Your task to perform on an android device: Search for the best rated vacuums on Target Image 0: 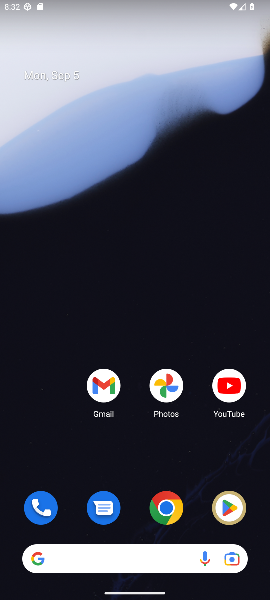
Step 0: click (165, 503)
Your task to perform on an android device: Search for the best rated vacuums on Target Image 1: 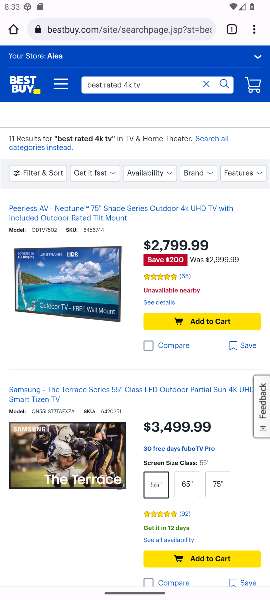
Step 1: click (165, 27)
Your task to perform on an android device: Search for the best rated vacuums on Target Image 2: 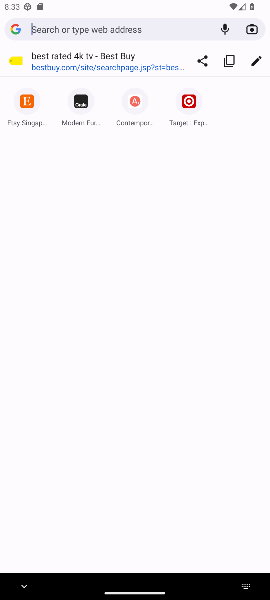
Step 2: type "target"
Your task to perform on an android device: Search for the best rated vacuums on Target Image 3: 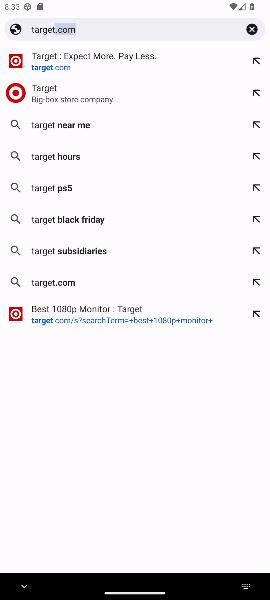
Step 3: click (57, 66)
Your task to perform on an android device: Search for the best rated vacuums on Target Image 4: 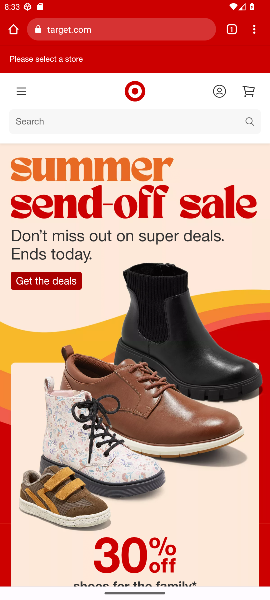
Step 4: click (247, 124)
Your task to perform on an android device: Search for the best rated vacuums on Target Image 5: 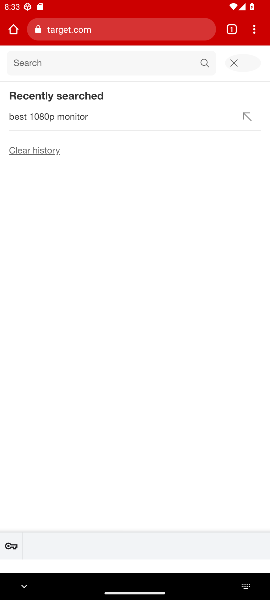
Step 5: type " best rated vacuums"
Your task to perform on an android device: Search for the best rated vacuums on Target Image 6: 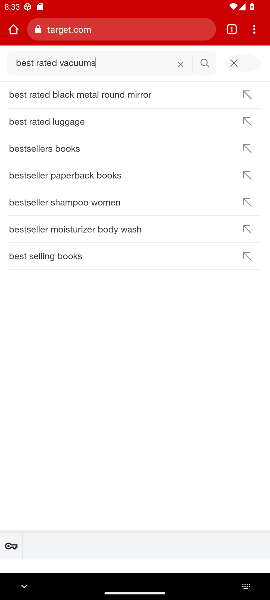
Step 6: click (208, 57)
Your task to perform on an android device: Search for the best rated vacuums on Target Image 7: 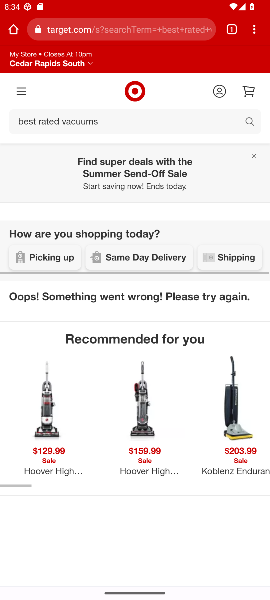
Step 7: drag from (168, 418) to (175, 310)
Your task to perform on an android device: Search for the best rated vacuums on Target Image 8: 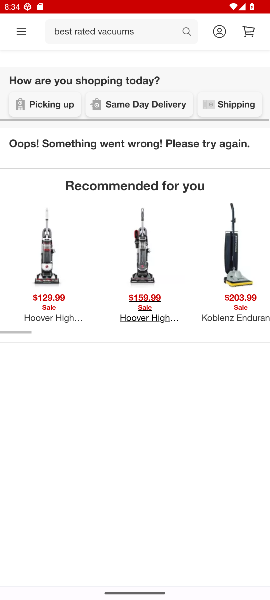
Step 8: drag from (183, 203) to (163, 366)
Your task to perform on an android device: Search for the best rated vacuums on Target Image 9: 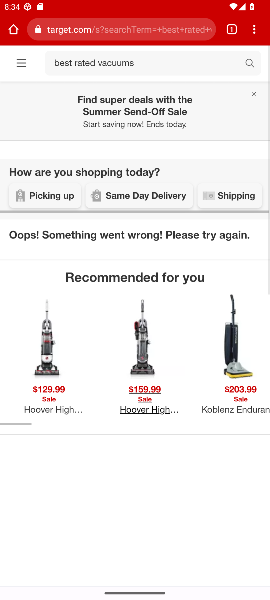
Step 9: drag from (197, 119) to (190, 183)
Your task to perform on an android device: Search for the best rated vacuums on Target Image 10: 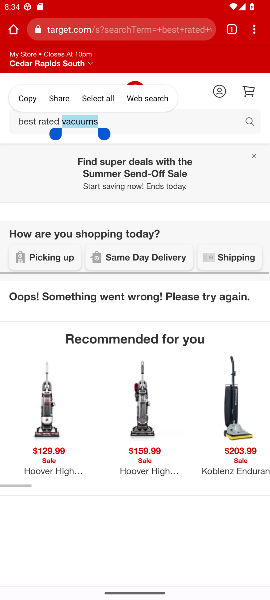
Step 10: click (245, 116)
Your task to perform on an android device: Search for the best rated vacuums on Target Image 11: 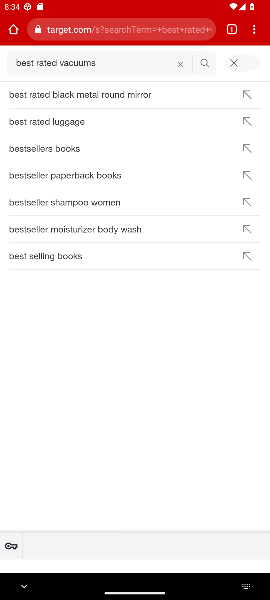
Step 11: click (204, 62)
Your task to perform on an android device: Search for the best rated vacuums on Target Image 12: 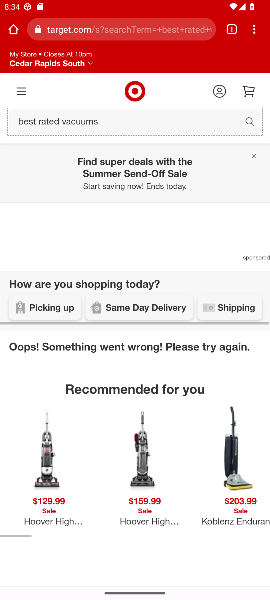
Step 12: task complete